Your task to perform on an android device: open the mobile data screen to see how much data has been used Image 0: 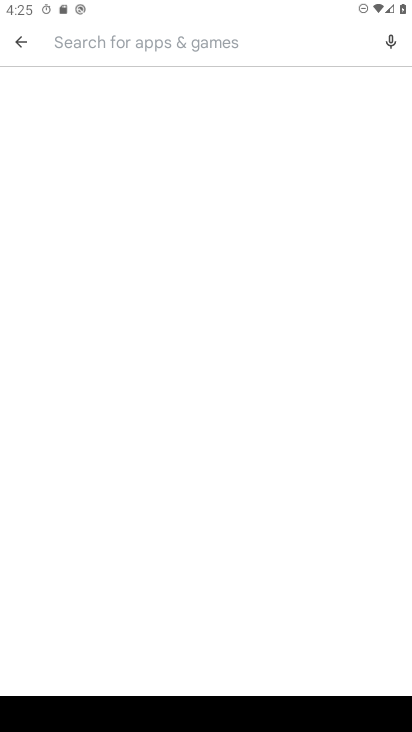
Step 0: press home button
Your task to perform on an android device: open the mobile data screen to see how much data has been used Image 1: 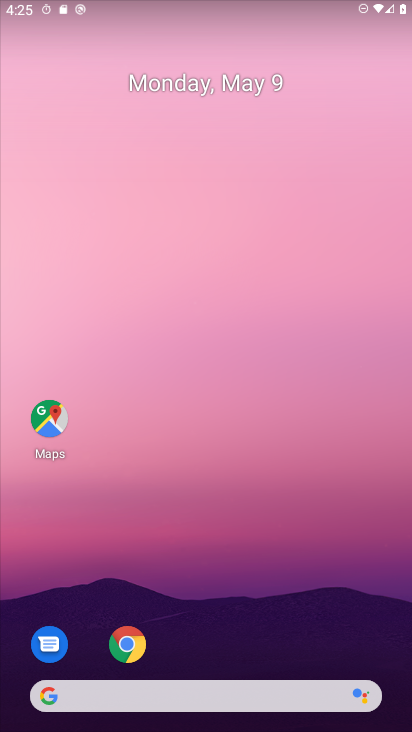
Step 1: drag from (225, 616) to (165, 207)
Your task to perform on an android device: open the mobile data screen to see how much data has been used Image 2: 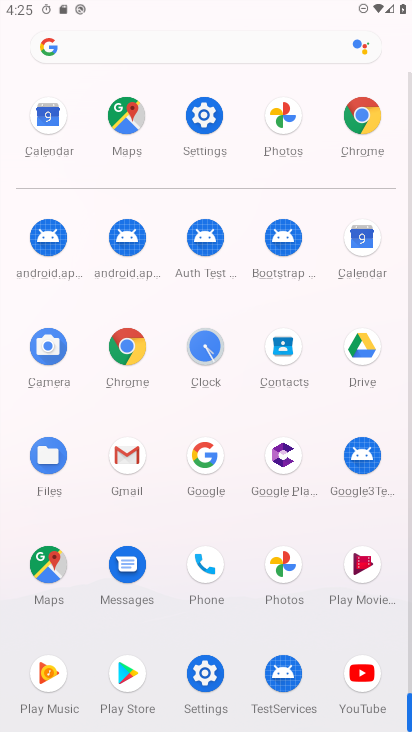
Step 2: click (198, 134)
Your task to perform on an android device: open the mobile data screen to see how much data has been used Image 3: 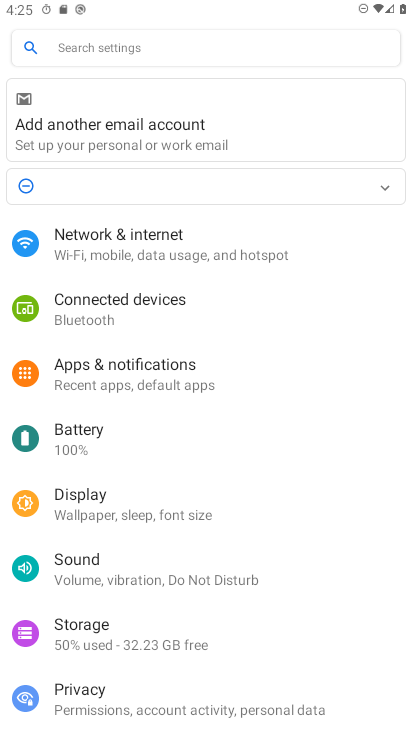
Step 3: click (218, 264)
Your task to perform on an android device: open the mobile data screen to see how much data has been used Image 4: 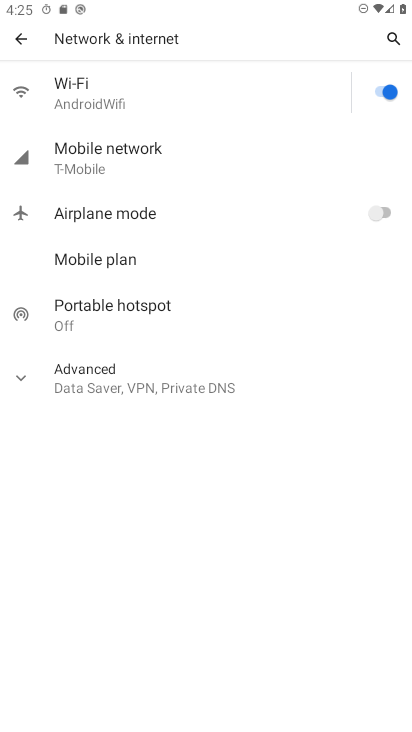
Step 4: click (124, 169)
Your task to perform on an android device: open the mobile data screen to see how much data has been used Image 5: 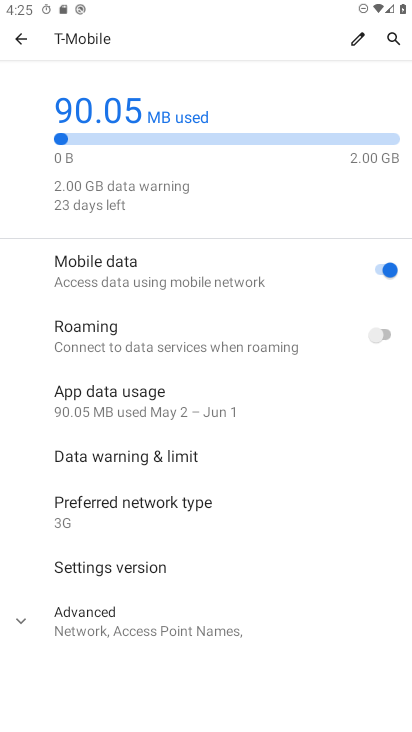
Step 5: task complete